Your task to perform on an android device: open the mobile data screen to see how much data has been used Image 0: 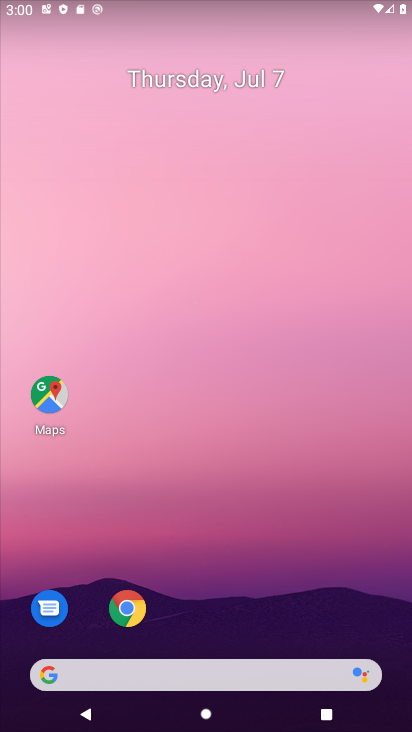
Step 0: drag from (390, 624) to (324, 1)
Your task to perform on an android device: open the mobile data screen to see how much data has been used Image 1: 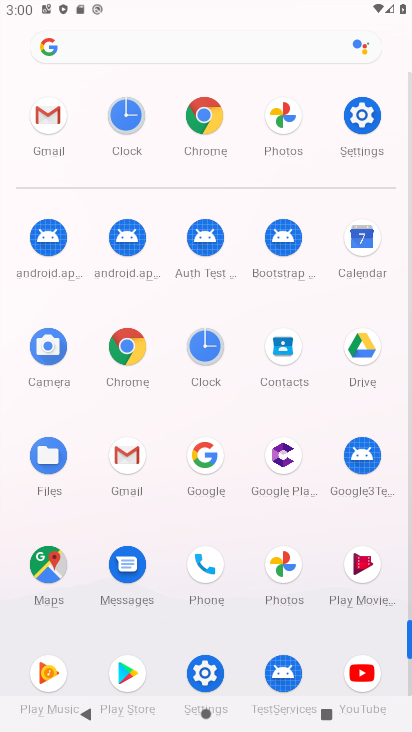
Step 1: click (204, 674)
Your task to perform on an android device: open the mobile data screen to see how much data has been used Image 2: 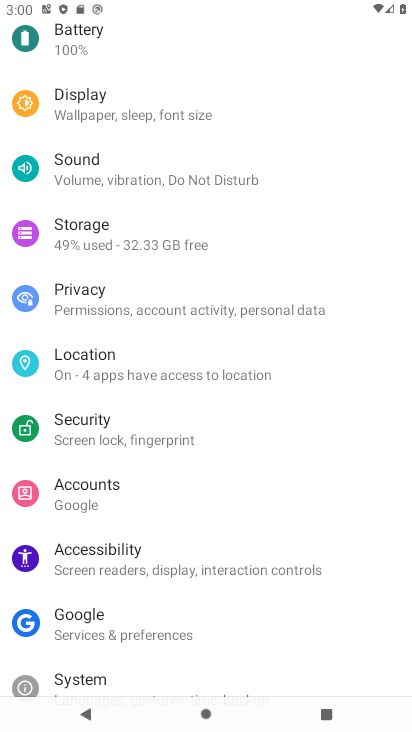
Step 2: drag from (348, 121) to (306, 414)
Your task to perform on an android device: open the mobile data screen to see how much data has been used Image 3: 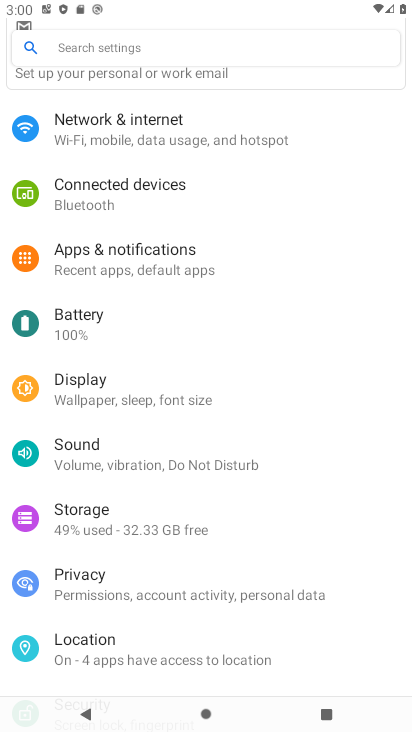
Step 3: click (105, 130)
Your task to perform on an android device: open the mobile data screen to see how much data has been used Image 4: 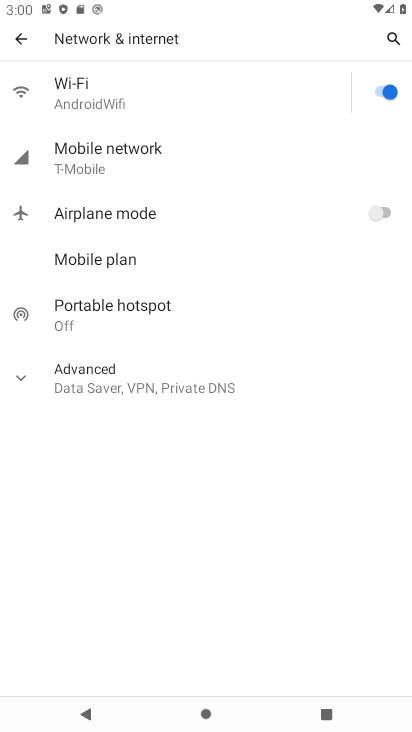
Step 4: click (93, 157)
Your task to perform on an android device: open the mobile data screen to see how much data has been used Image 5: 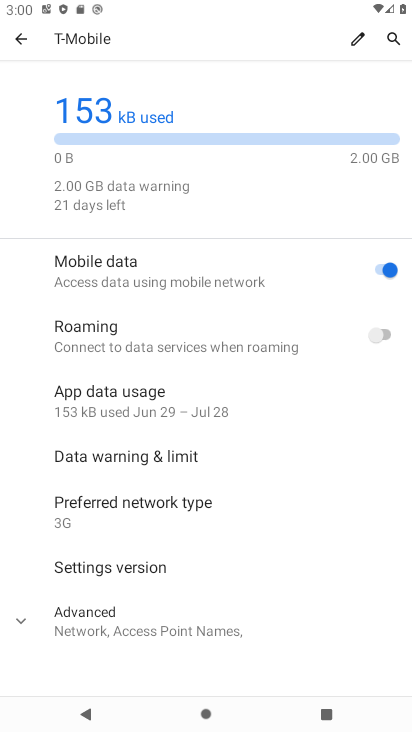
Step 5: task complete